Your task to perform on an android device: Search for good Chinese restaurants Image 0: 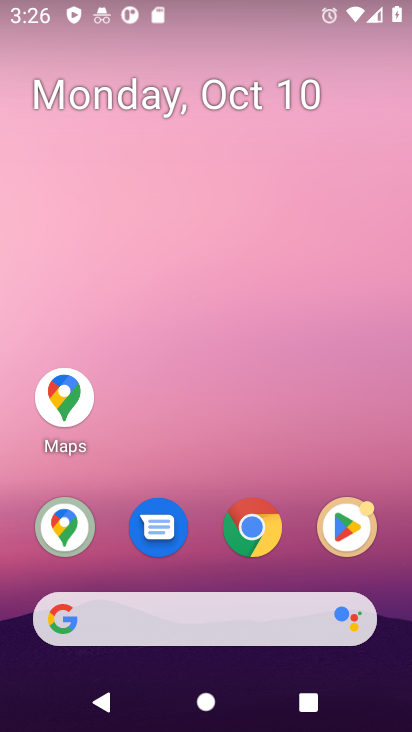
Step 0: click (66, 395)
Your task to perform on an android device: Search for good Chinese restaurants Image 1: 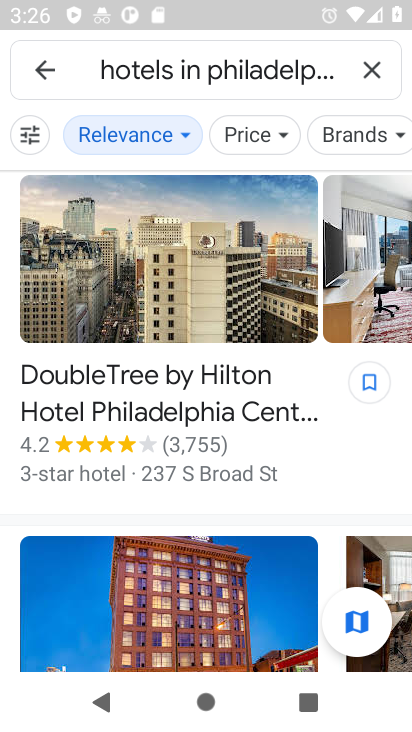
Step 1: click (375, 63)
Your task to perform on an android device: Search for good Chinese restaurants Image 2: 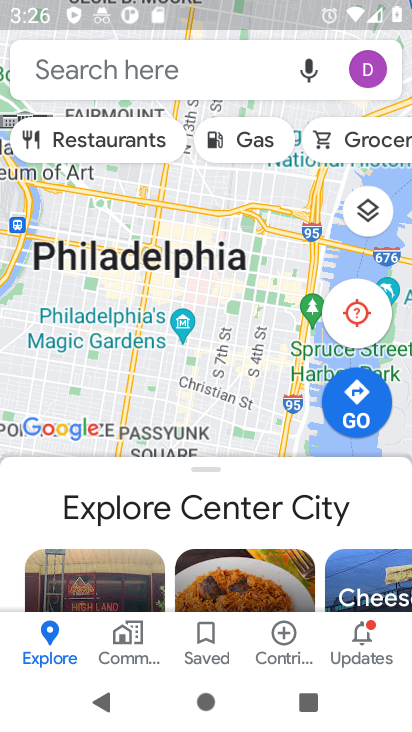
Step 2: click (198, 69)
Your task to perform on an android device: Search for good Chinese restaurants Image 3: 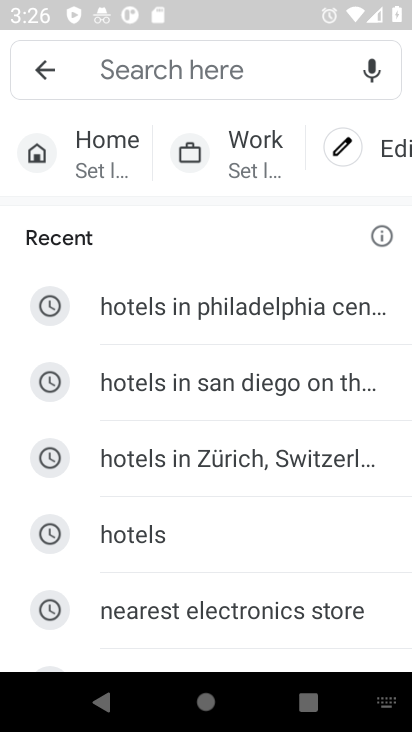
Step 3: type "good chinese restaurants"
Your task to perform on an android device: Search for good Chinese restaurants Image 4: 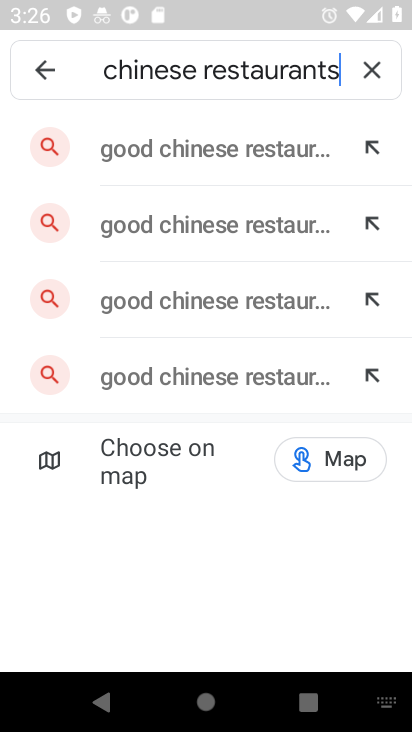
Step 4: click (235, 142)
Your task to perform on an android device: Search for good Chinese restaurants Image 5: 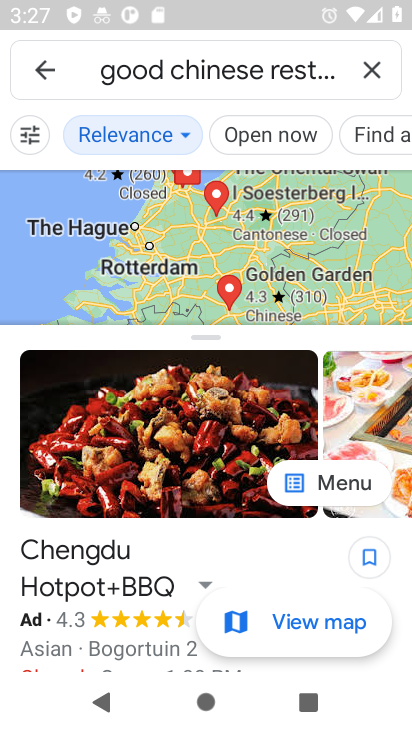
Step 5: task complete